Your task to perform on an android device: Open settings on Google Maps Image 0: 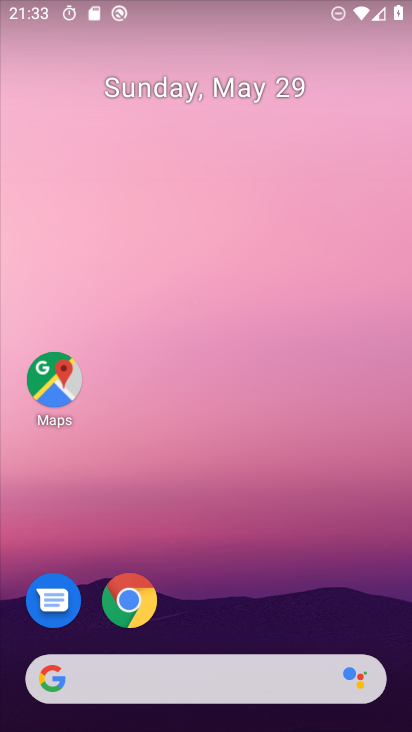
Step 0: drag from (318, 623) to (315, 196)
Your task to perform on an android device: Open settings on Google Maps Image 1: 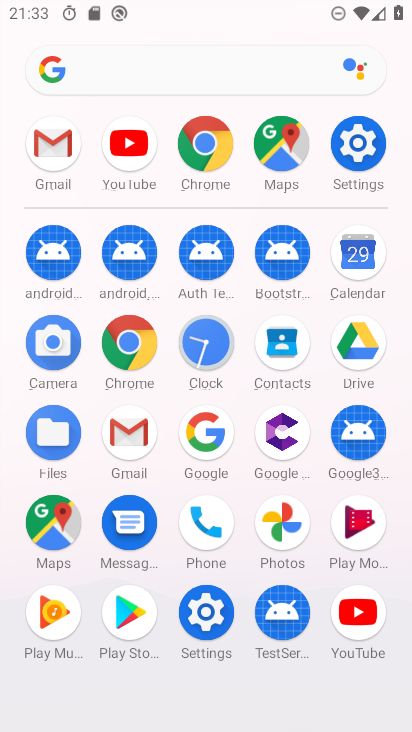
Step 1: click (61, 553)
Your task to perform on an android device: Open settings on Google Maps Image 2: 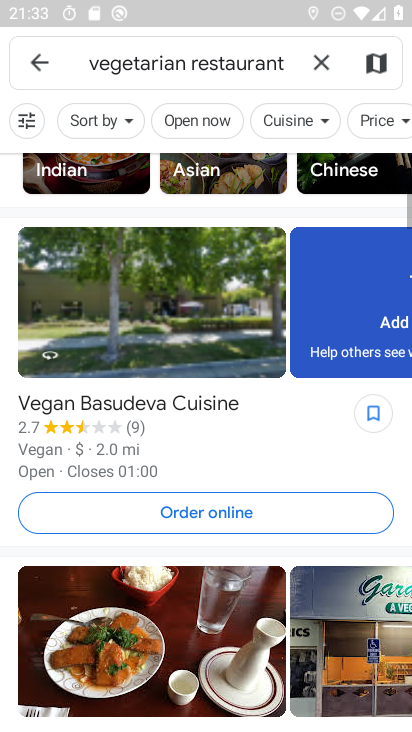
Step 2: click (22, 61)
Your task to perform on an android device: Open settings on Google Maps Image 3: 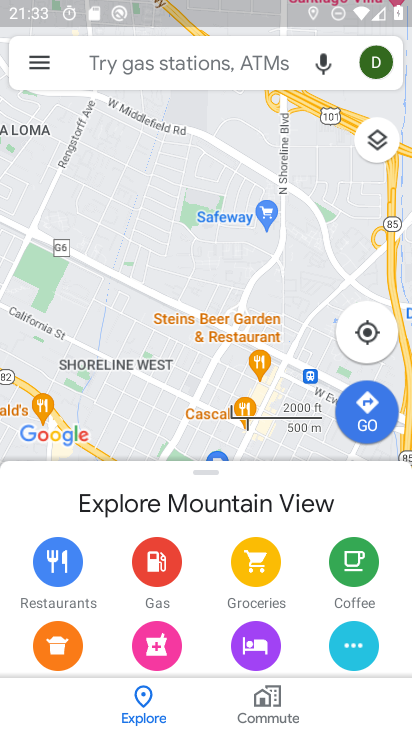
Step 3: click (35, 68)
Your task to perform on an android device: Open settings on Google Maps Image 4: 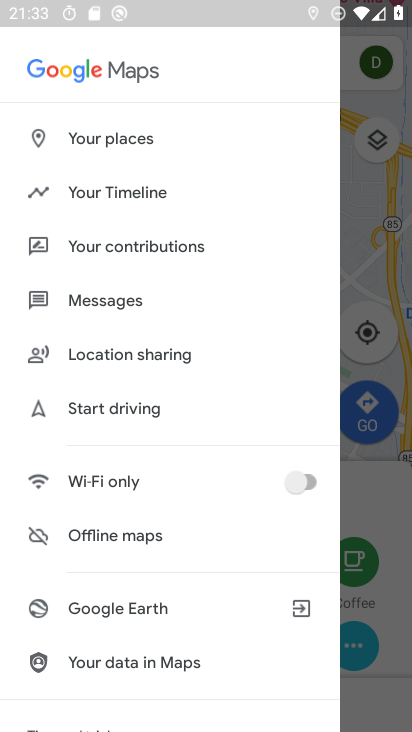
Step 4: click (126, 195)
Your task to perform on an android device: Open settings on Google Maps Image 5: 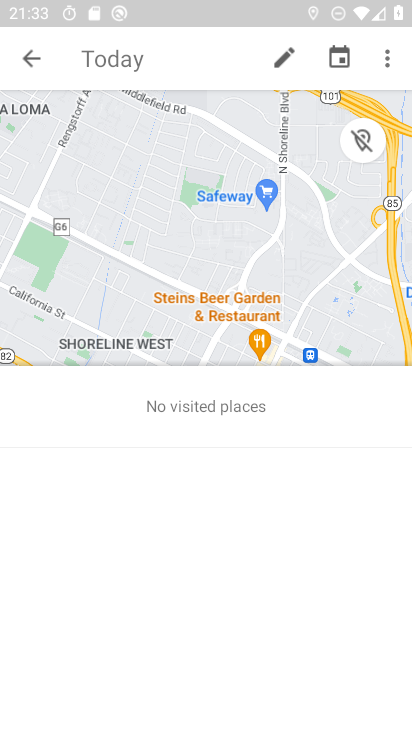
Step 5: task complete